Your task to perform on an android device: Go to Reddit.com Image 0: 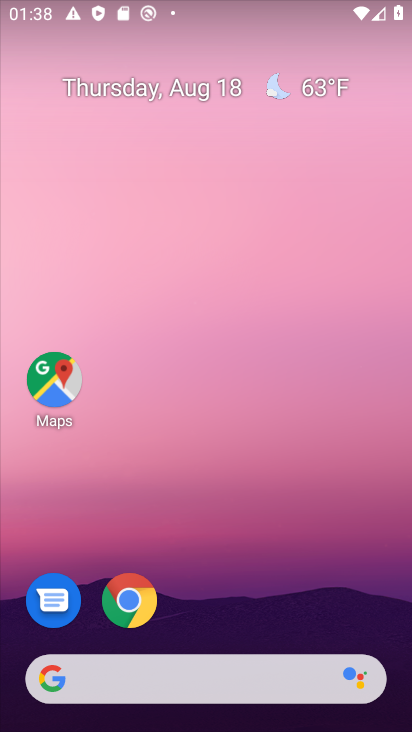
Step 0: click (181, 684)
Your task to perform on an android device: Go to Reddit.com Image 1: 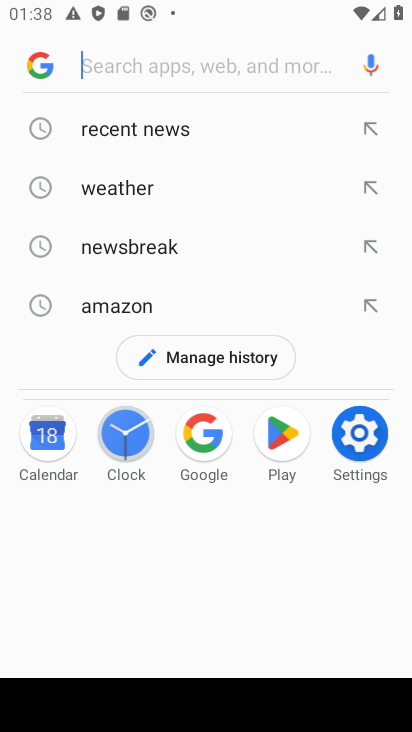
Step 1: type "reddit.com"
Your task to perform on an android device: Go to Reddit.com Image 2: 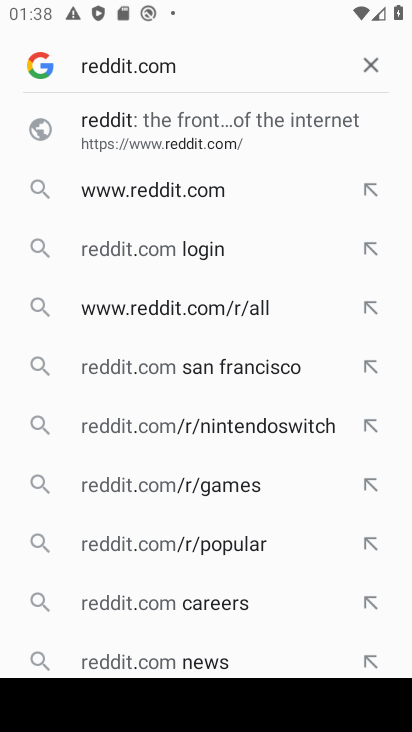
Step 2: click (136, 126)
Your task to perform on an android device: Go to Reddit.com Image 3: 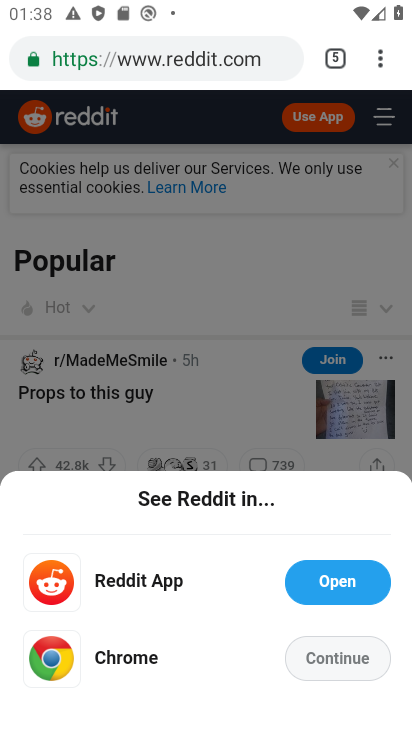
Step 3: click (321, 660)
Your task to perform on an android device: Go to Reddit.com Image 4: 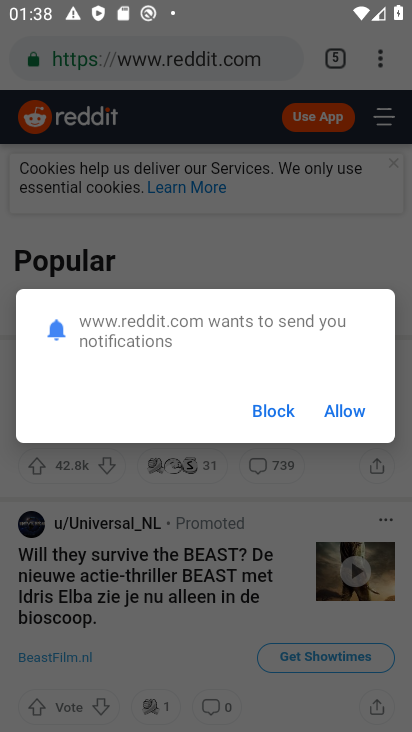
Step 4: click (338, 411)
Your task to perform on an android device: Go to Reddit.com Image 5: 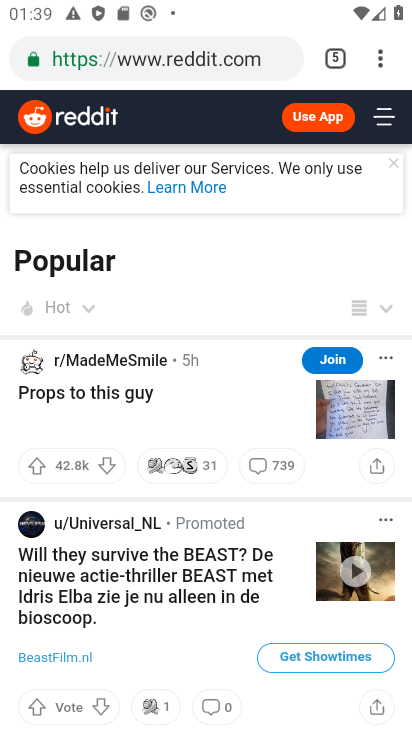
Step 5: task complete